Your task to perform on an android device: open a bookmark in the chrome app Image 0: 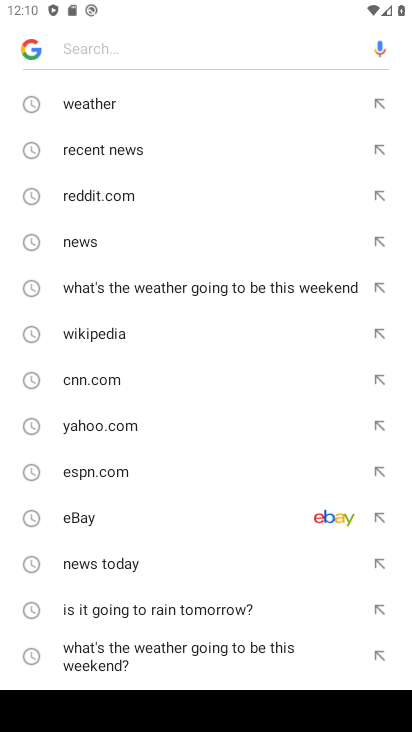
Step 0: press home button
Your task to perform on an android device: open a bookmark in the chrome app Image 1: 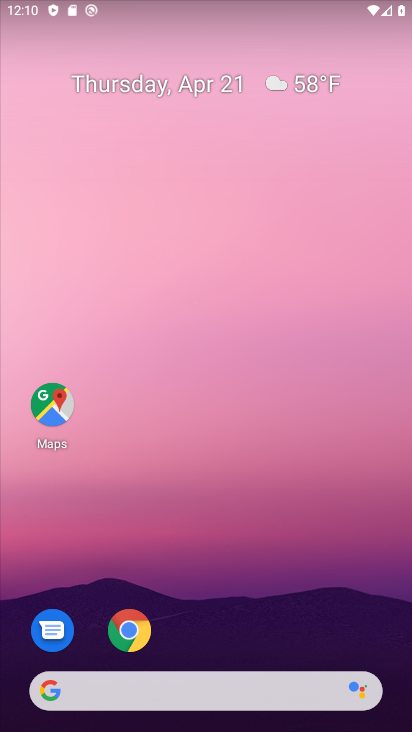
Step 1: drag from (170, 671) to (302, 104)
Your task to perform on an android device: open a bookmark in the chrome app Image 2: 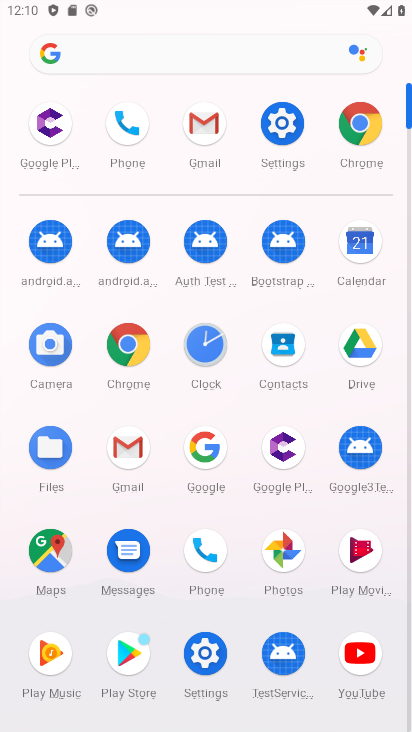
Step 2: click (365, 137)
Your task to perform on an android device: open a bookmark in the chrome app Image 3: 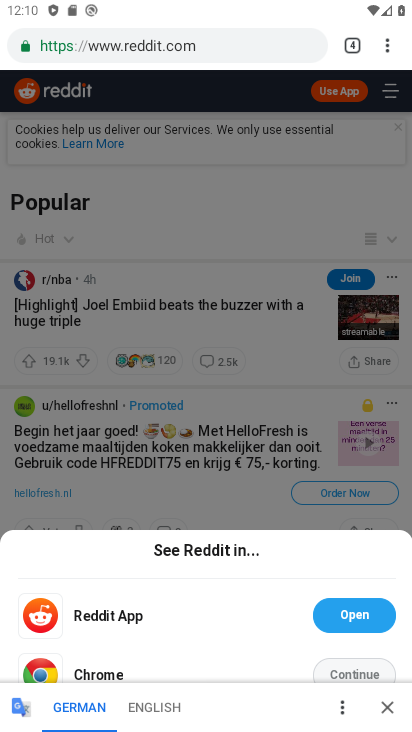
Step 3: click (386, 54)
Your task to perform on an android device: open a bookmark in the chrome app Image 4: 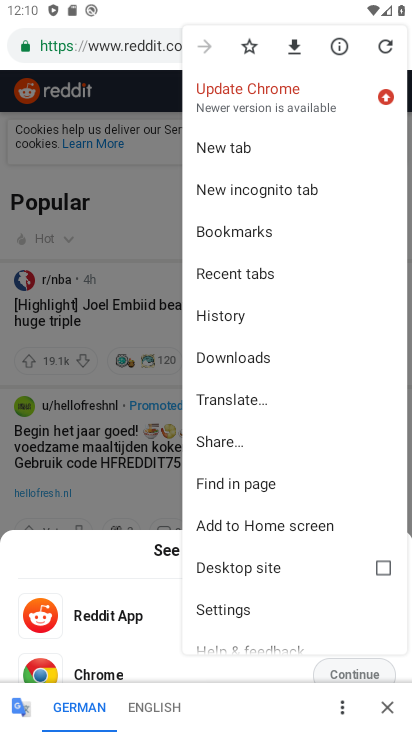
Step 4: click (239, 232)
Your task to perform on an android device: open a bookmark in the chrome app Image 5: 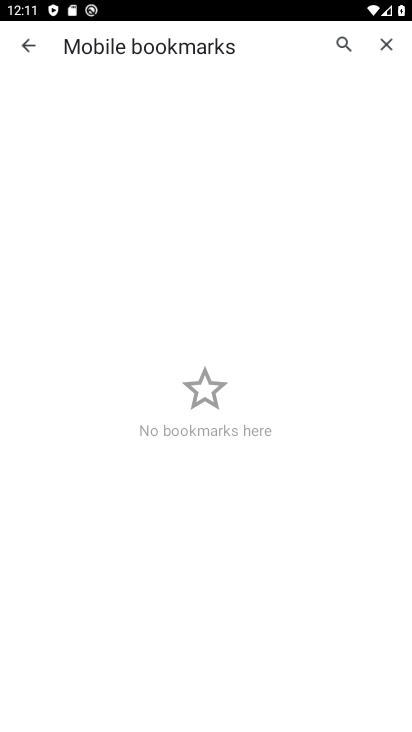
Step 5: task complete